Your task to perform on an android device: Go to Android settings Image 0: 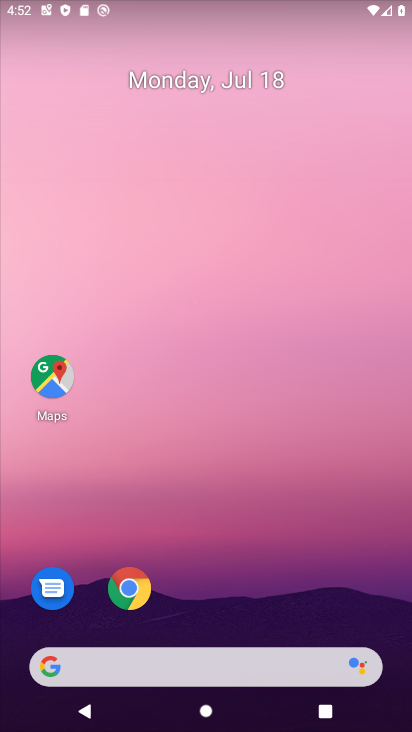
Step 0: drag from (322, 600) to (218, 51)
Your task to perform on an android device: Go to Android settings Image 1: 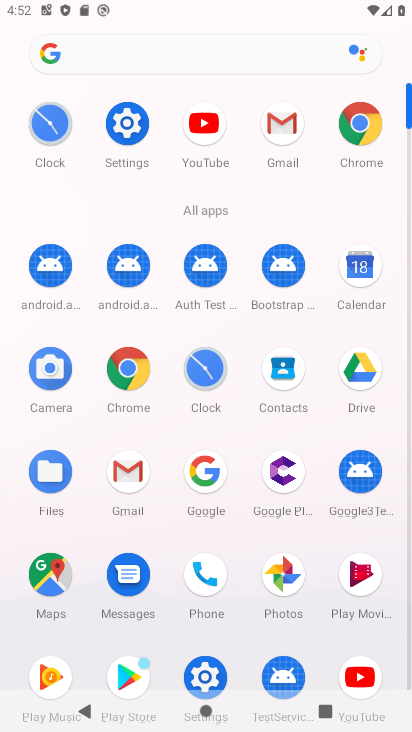
Step 1: click (129, 120)
Your task to perform on an android device: Go to Android settings Image 2: 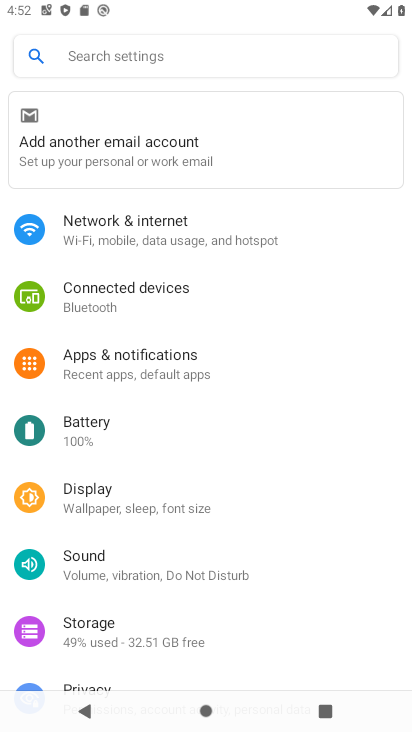
Step 2: task complete